Your task to perform on an android device: install app "Google Photos" Image 0: 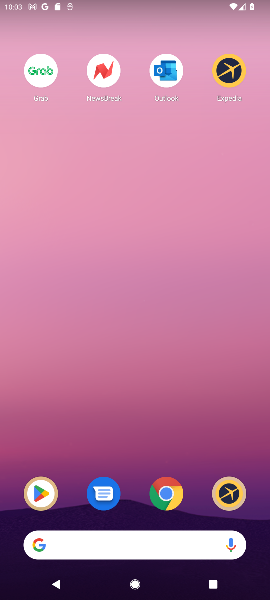
Step 0: drag from (125, 508) to (147, 44)
Your task to perform on an android device: install app "Google Photos" Image 1: 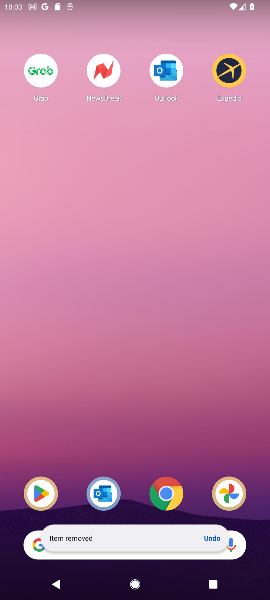
Step 1: click (121, 440)
Your task to perform on an android device: install app "Google Photos" Image 2: 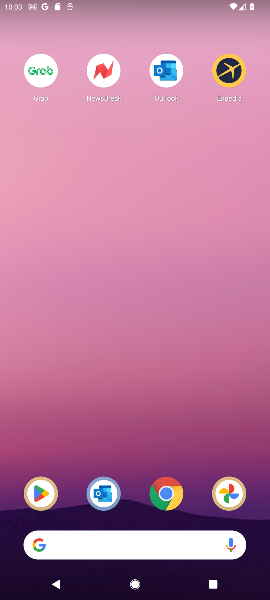
Step 2: drag from (129, 517) to (115, 46)
Your task to perform on an android device: install app "Google Photos" Image 3: 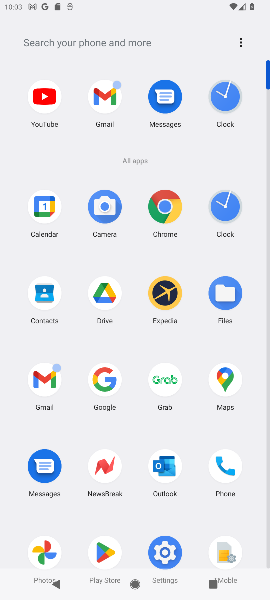
Step 3: click (36, 547)
Your task to perform on an android device: install app "Google Photos" Image 4: 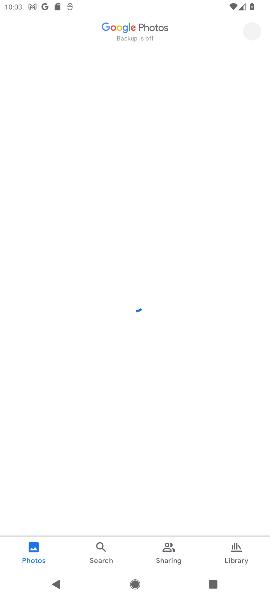
Step 4: task complete